Your task to perform on an android device: open a bookmark in the chrome app Image 0: 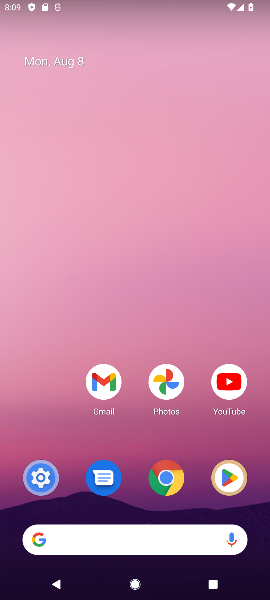
Step 0: press home button
Your task to perform on an android device: open a bookmark in the chrome app Image 1: 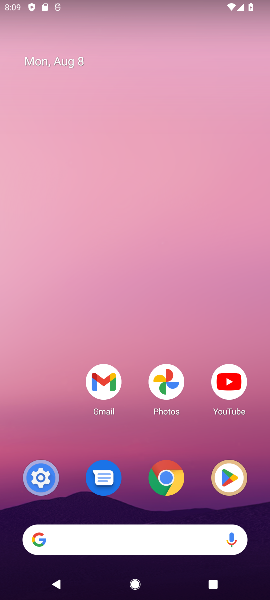
Step 1: click (165, 478)
Your task to perform on an android device: open a bookmark in the chrome app Image 2: 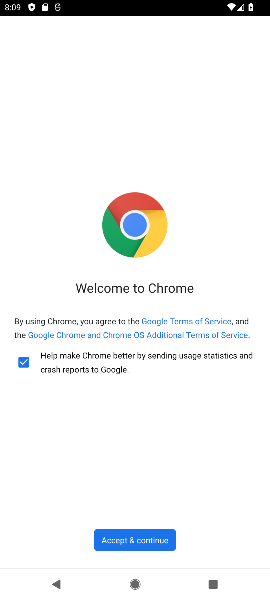
Step 2: click (112, 539)
Your task to perform on an android device: open a bookmark in the chrome app Image 3: 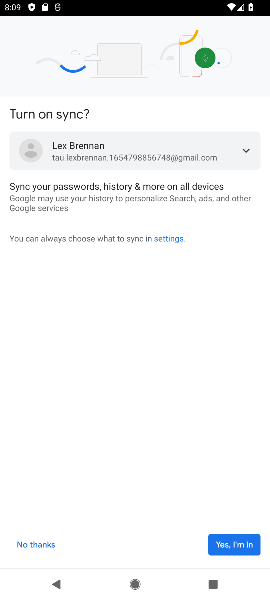
Step 3: click (231, 539)
Your task to perform on an android device: open a bookmark in the chrome app Image 4: 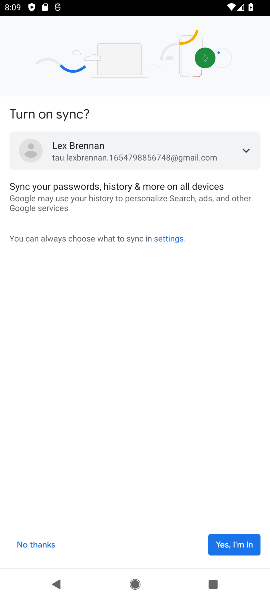
Step 4: click (230, 545)
Your task to perform on an android device: open a bookmark in the chrome app Image 5: 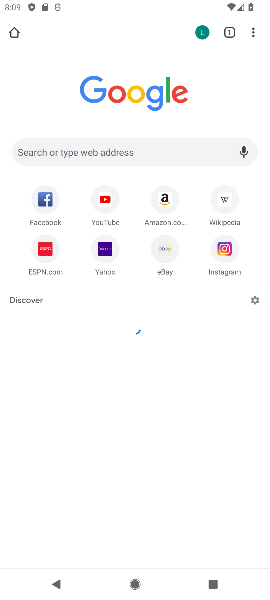
Step 5: task complete